Your task to perform on an android device: turn vacation reply on in the gmail app Image 0: 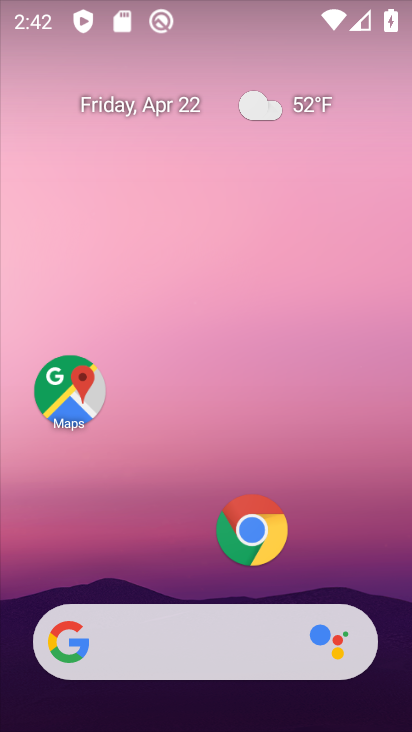
Step 0: drag from (199, 151) to (202, 105)
Your task to perform on an android device: turn vacation reply on in the gmail app Image 1: 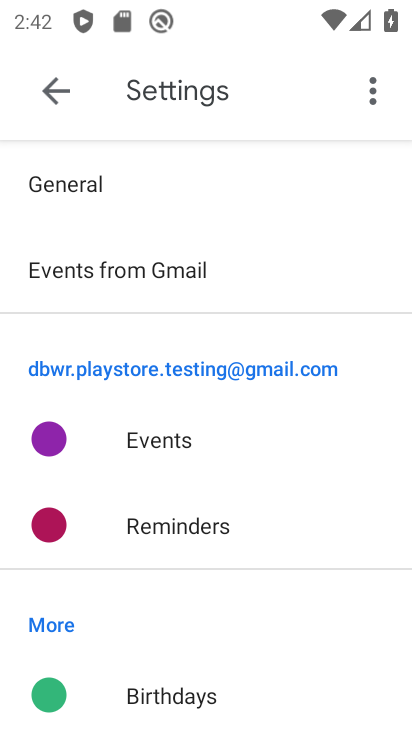
Step 1: press home button
Your task to perform on an android device: turn vacation reply on in the gmail app Image 2: 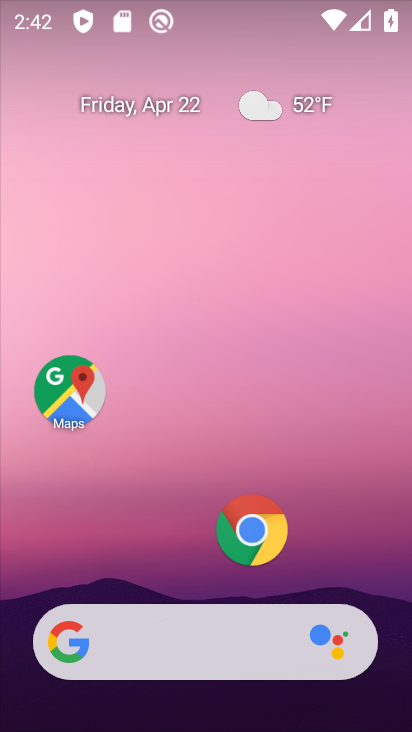
Step 2: drag from (209, 626) to (202, 64)
Your task to perform on an android device: turn vacation reply on in the gmail app Image 3: 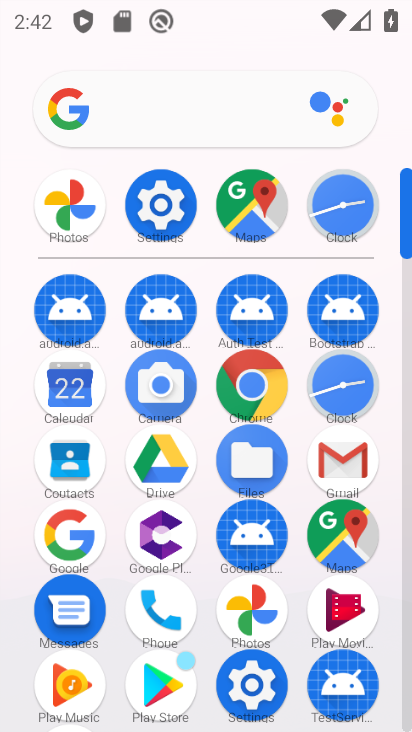
Step 3: click (349, 459)
Your task to perform on an android device: turn vacation reply on in the gmail app Image 4: 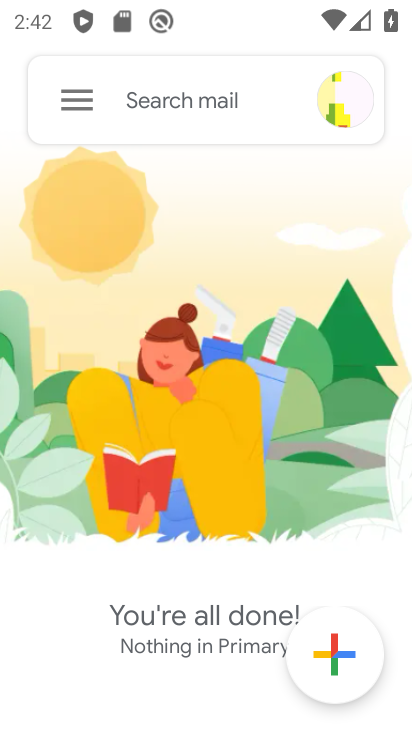
Step 4: click (91, 110)
Your task to perform on an android device: turn vacation reply on in the gmail app Image 5: 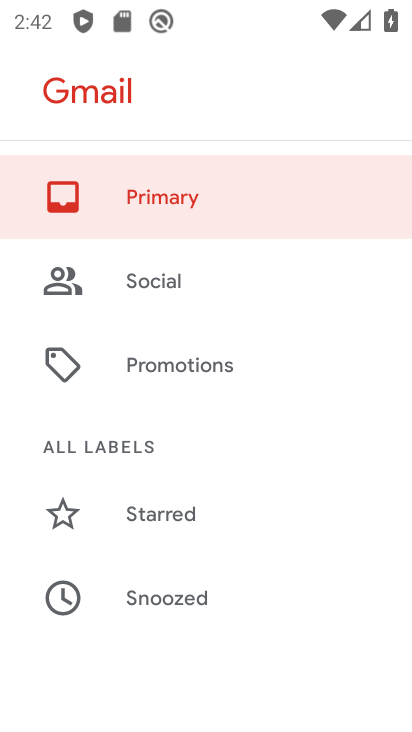
Step 5: drag from (242, 665) to (225, 45)
Your task to perform on an android device: turn vacation reply on in the gmail app Image 6: 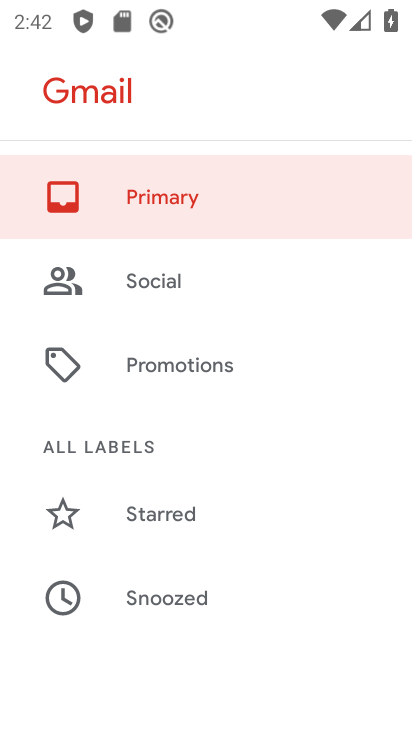
Step 6: drag from (180, 636) to (241, 1)
Your task to perform on an android device: turn vacation reply on in the gmail app Image 7: 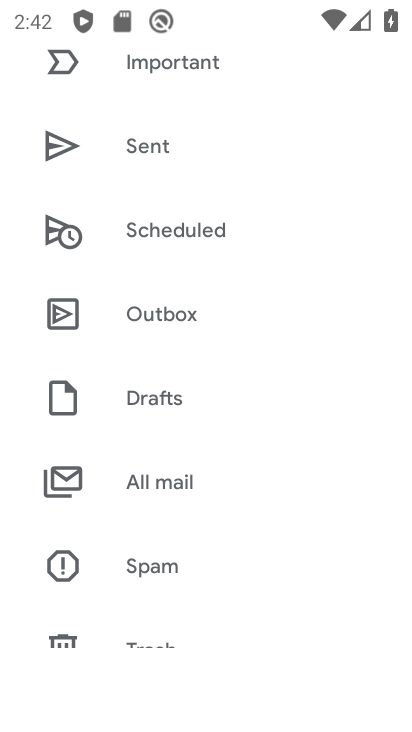
Step 7: drag from (250, 639) to (281, 47)
Your task to perform on an android device: turn vacation reply on in the gmail app Image 8: 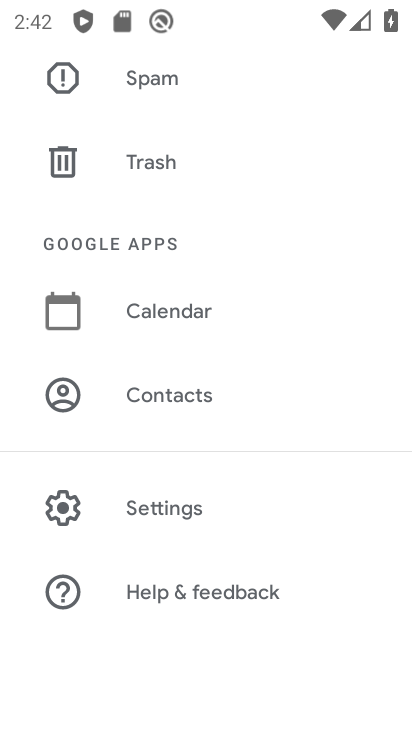
Step 8: click (141, 512)
Your task to perform on an android device: turn vacation reply on in the gmail app Image 9: 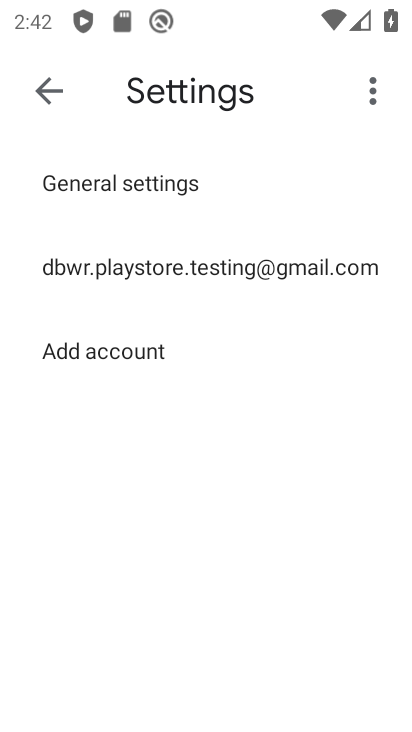
Step 9: click (170, 266)
Your task to perform on an android device: turn vacation reply on in the gmail app Image 10: 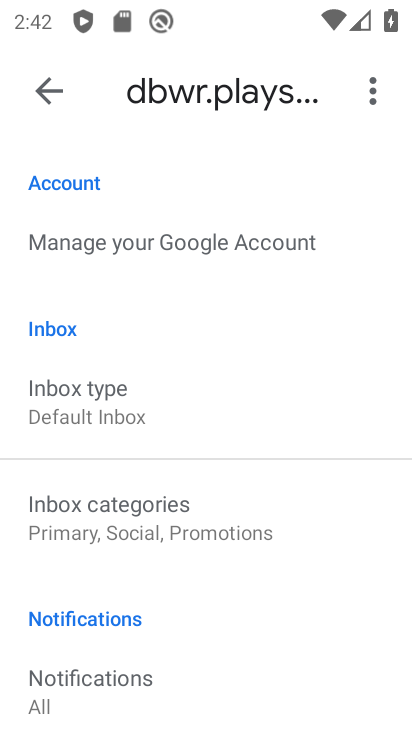
Step 10: drag from (170, 562) to (192, 45)
Your task to perform on an android device: turn vacation reply on in the gmail app Image 11: 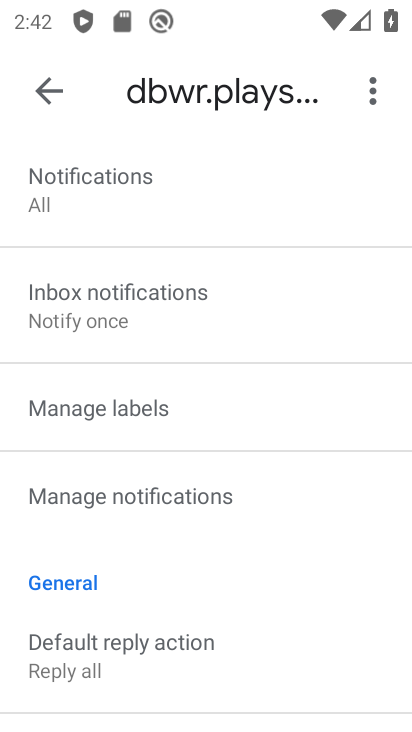
Step 11: drag from (207, 643) to (257, 116)
Your task to perform on an android device: turn vacation reply on in the gmail app Image 12: 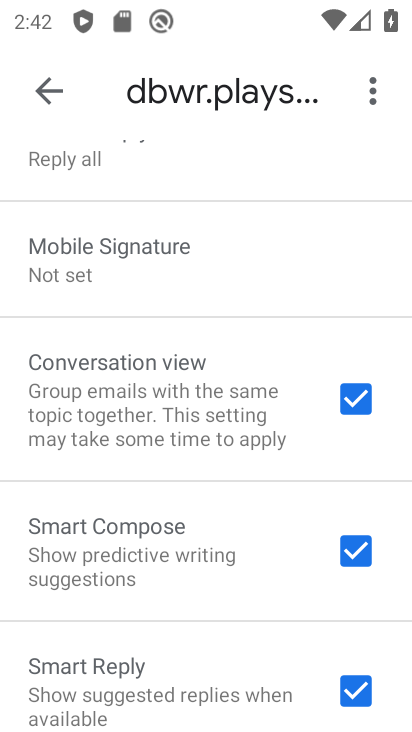
Step 12: drag from (167, 612) to (185, 92)
Your task to perform on an android device: turn vacation reply on in the gmail app Image 13: 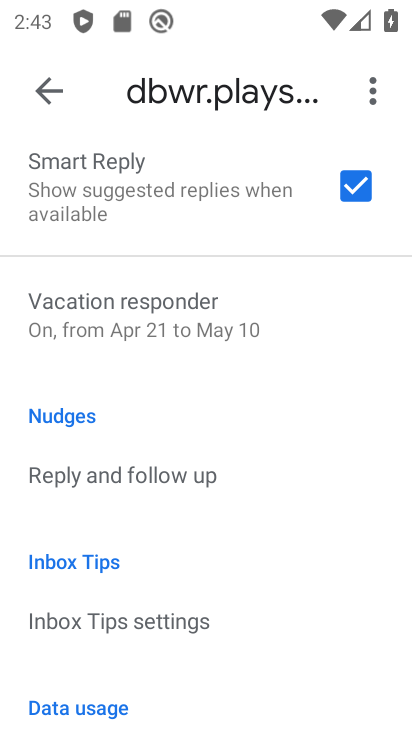
Step 13: click (241, 327)
Your task to perform on an android device: turn vacation reply on in the gmail app Image 14: 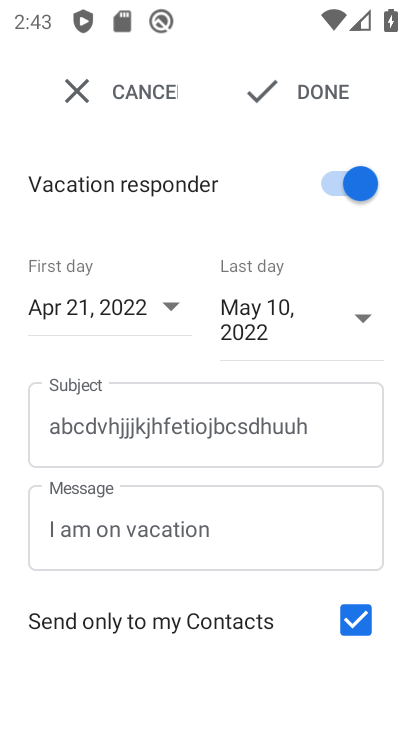
Step 14: click (299, 96)
Your task to perform on an android device: turn vacation reply on in the gmail app Image 15: 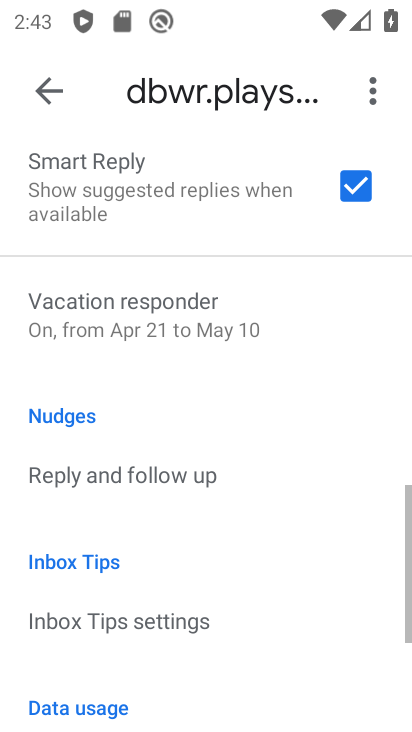
Step 15: task complete